Your task to perform on an android device: turn on sleep mode Image 0: 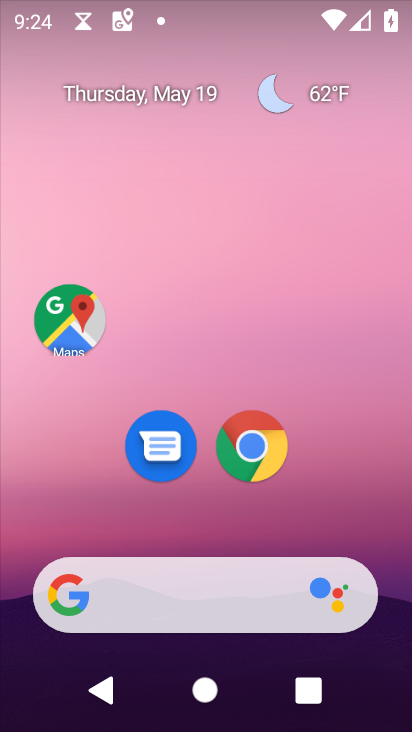
Step 0: drag from (206, 545) to (241, 63)
Your task to perform on an android device: turn on sleep mode Image 1: 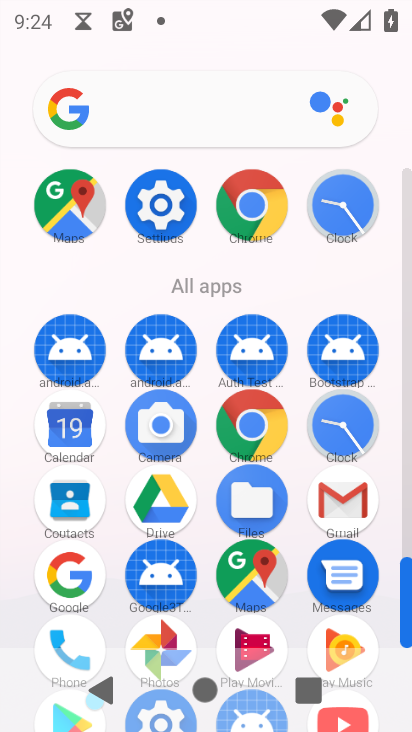
Step 1: click (153, 195)
Your task to perform on an android device: turn on sleep mode Image 2: 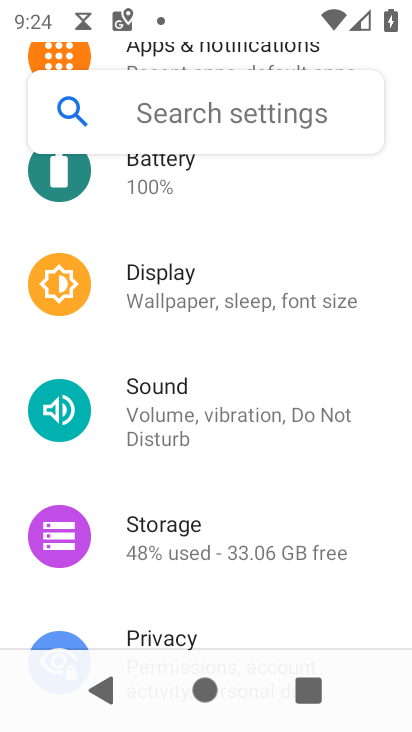
Step 2: click (150, 307)
Your task to perform on an android device: turn on sleep mode Image 3: 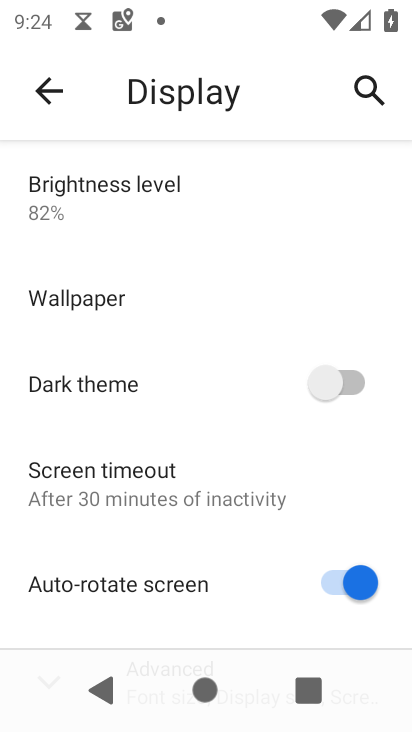
Step 3: drag from (266, 588) to (208, 270)
Your task to perform on an android device: turn on sleep mode Image 4: 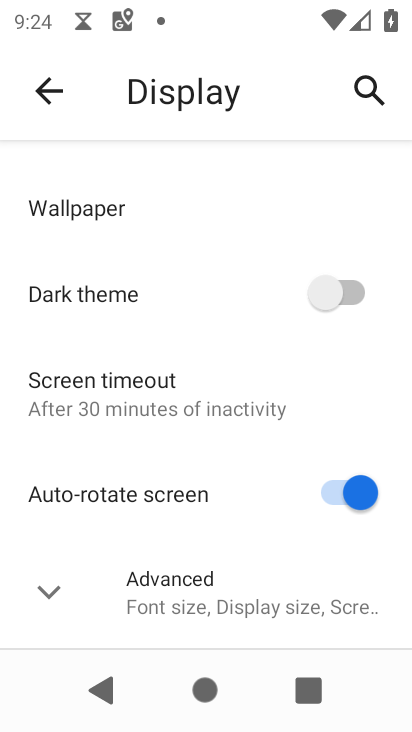
Step 4: click (175, 592)
Your task to perform on an android device: turn on sleep mode Image 5: 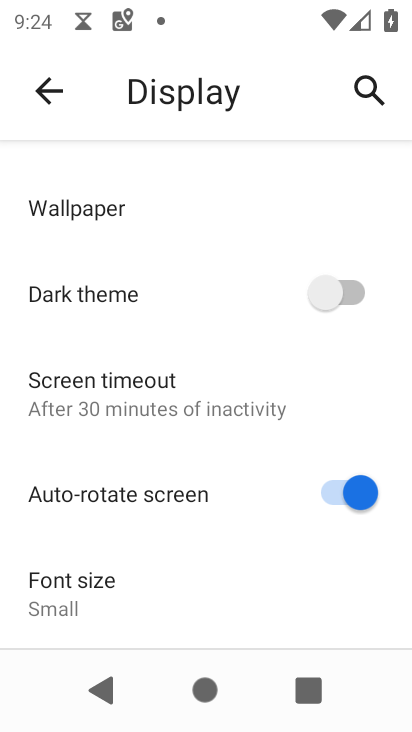
Step 5: drag from (158, 616) to (111, 267)
Your task to perform on an android device: turn on sleep mode Image 6: 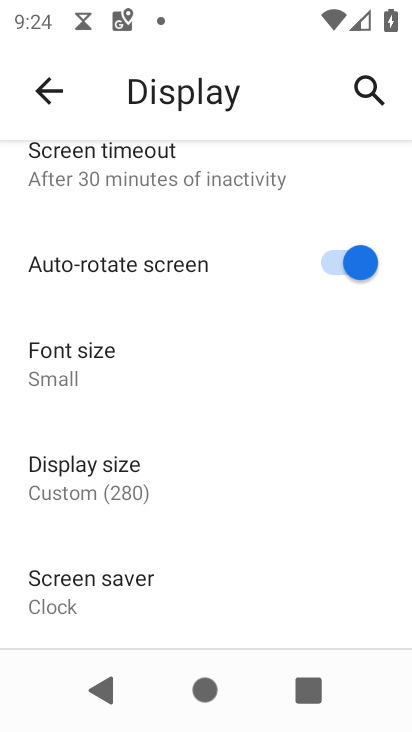
Step 6: drag from (147, 574) to (142, 147)
Your task to perform on an android device: turn on sleep mode Image 7: 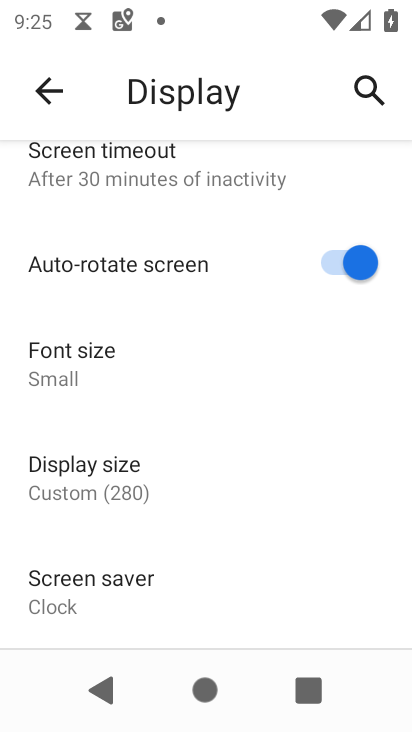
Step 7: click (64, 91)
Your task to perform on an android device: turn on sleep mode Image 8: 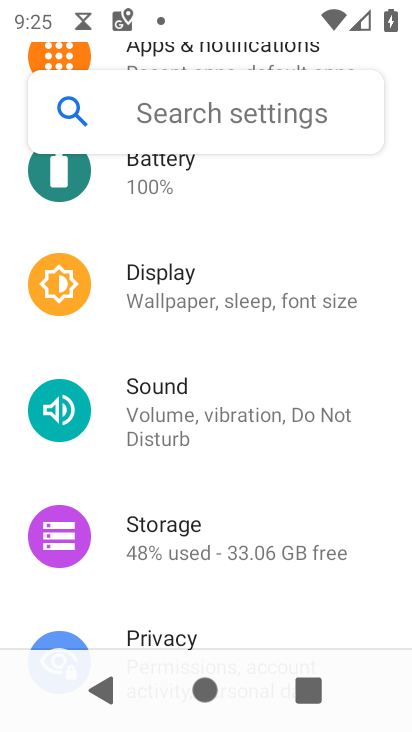
Step 8: task complete